Your task to perform on an android device: Open Google Image 0: 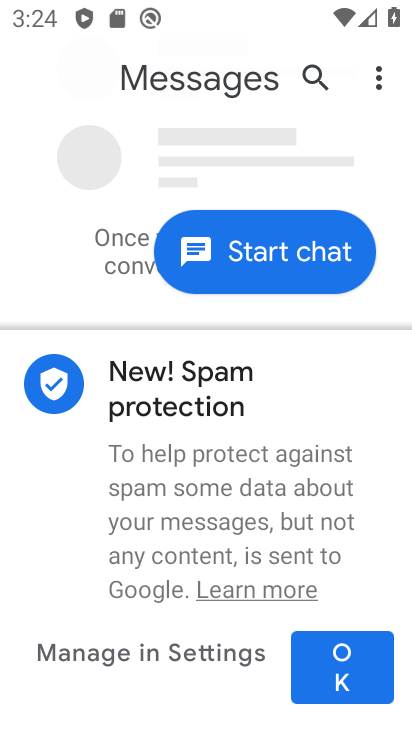
Step 0: press back button
Your task to perform on an android device: Open Google Image 1: 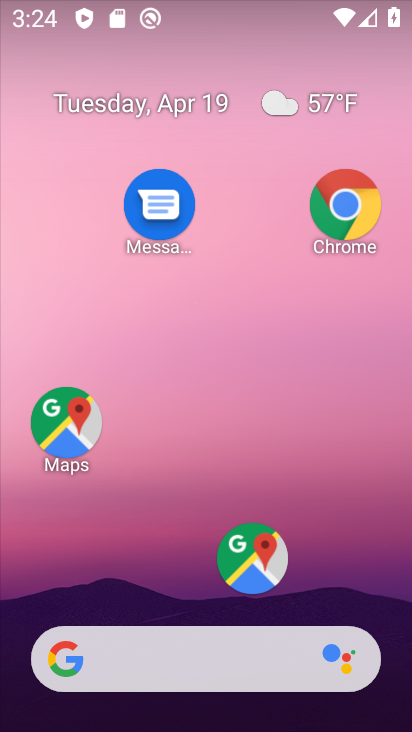
Step 1: drag from (107, 587) to (163, 232)
Your task to perform on an android device: Open Google Image 2: 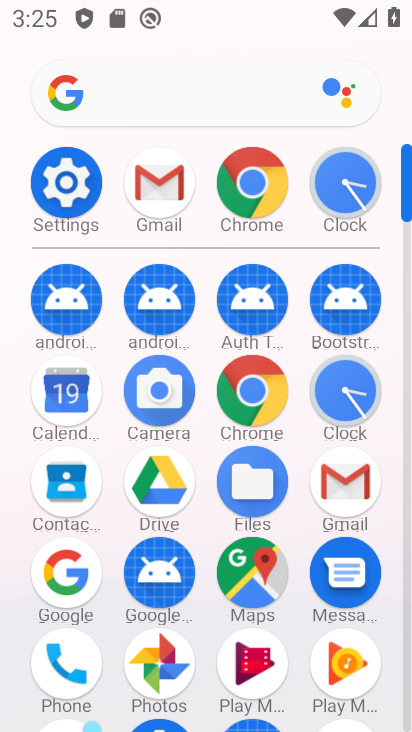
Step 2: click (70, 571)
Your task to perform on an android device: Open Google Image 3: 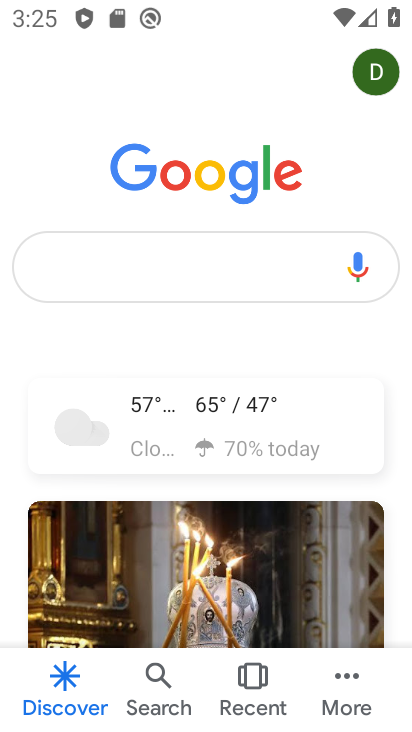
Step 3: task complete